Your task to perform on an android device: allow cookies in the chrome app Image 0: 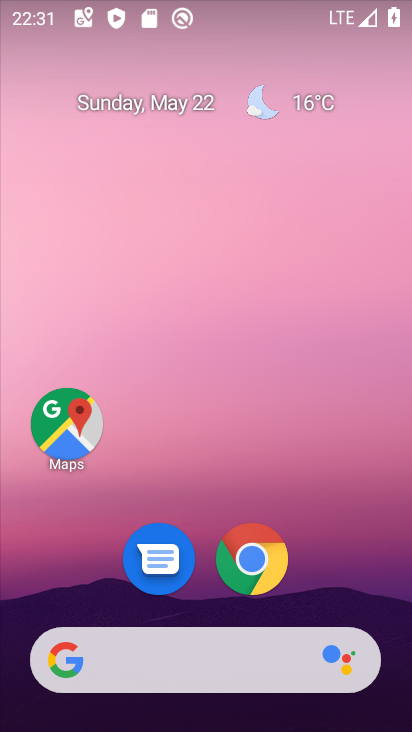
Step 0: drag from (308, 695) to (302, 224)
Your task to perform on an android device: allow cookies in the chrome app Image 1: 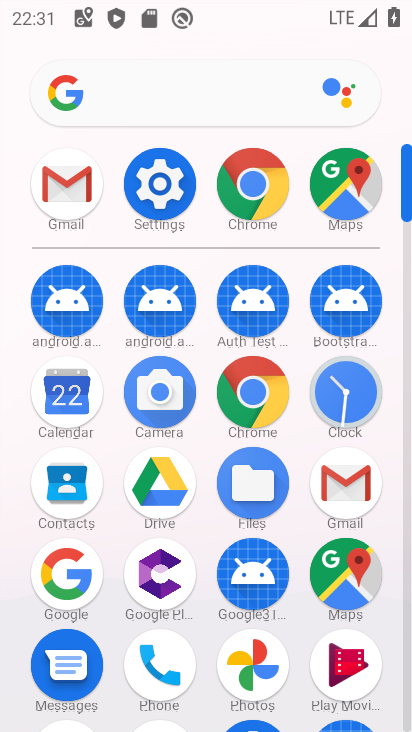
Step 1: click (277, 195)
Your task to perform on an android device: allow cookies in the chrome app Image 2: 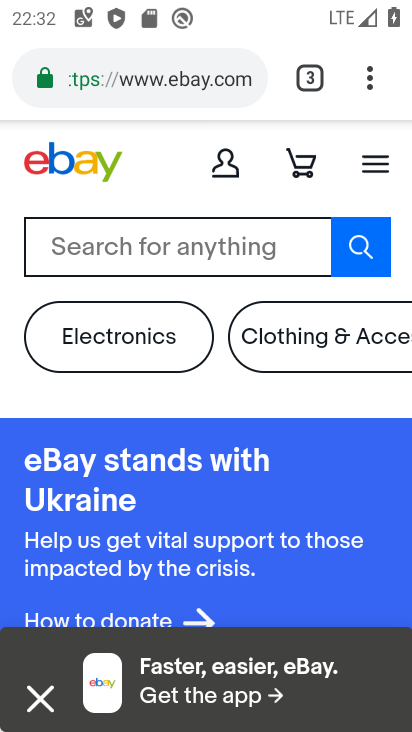
Step 2: click (364, 98)
Your task to perform on an android device: allow cookies in the chrome app Image 3: 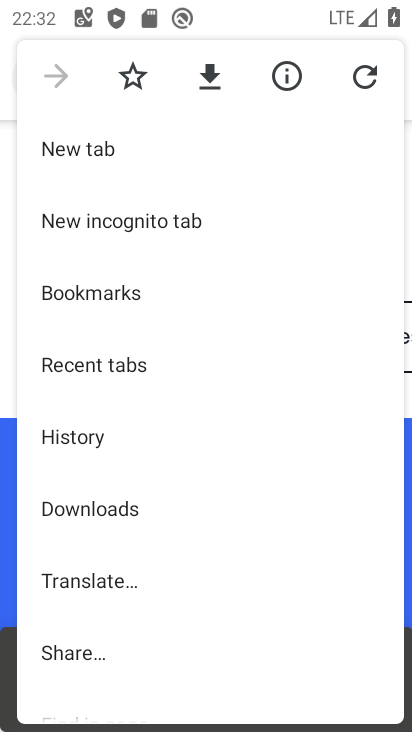
Step 3: drag from (141, 566) to (155, 348)
Your task to perform on an android device: allow cookies in the chrome app Image 4: 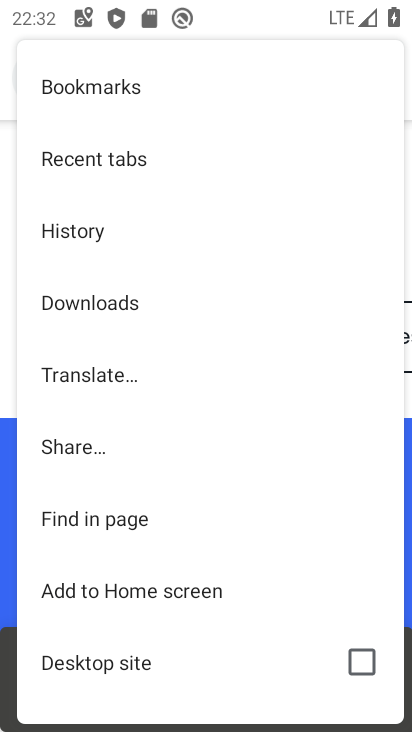
Step 4: drag from (162, 638) to (153, 451)
Your task to perform on an android device: allow cookies in the chrome app Image 5: 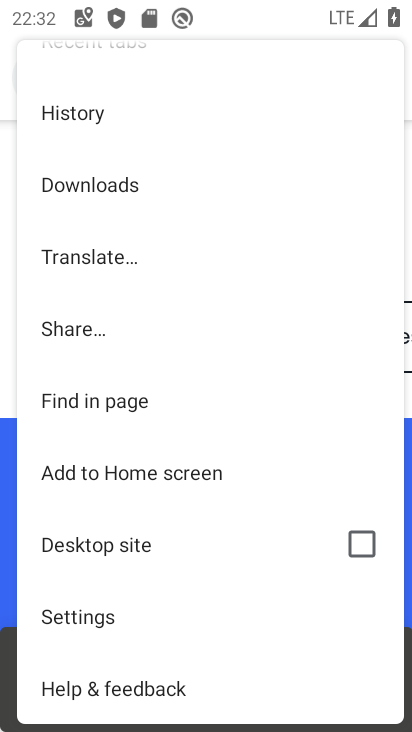
Step 5: click (120, 623)
Your task to perform on an android device: allow cookies in the chrome app Image 6: 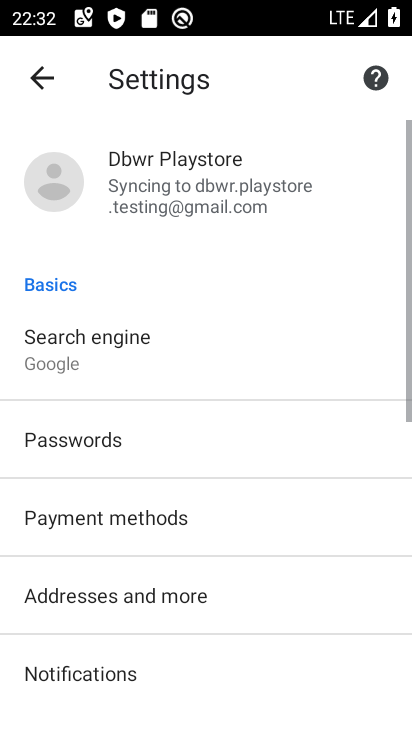
Step 6: drag from (155, 636) to (148, 291)
Your task to perform on an android device: allow cookies in the chrome app Image 7: 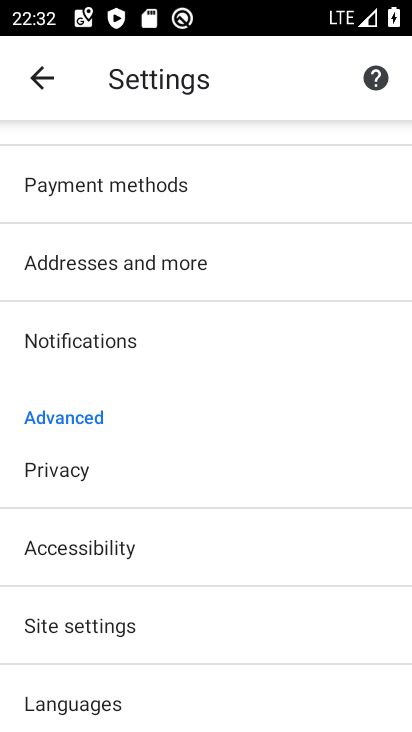
Step 7: click (108, 626)
Your task to perform on an android device: allow cookies in the chrome app Image 8: 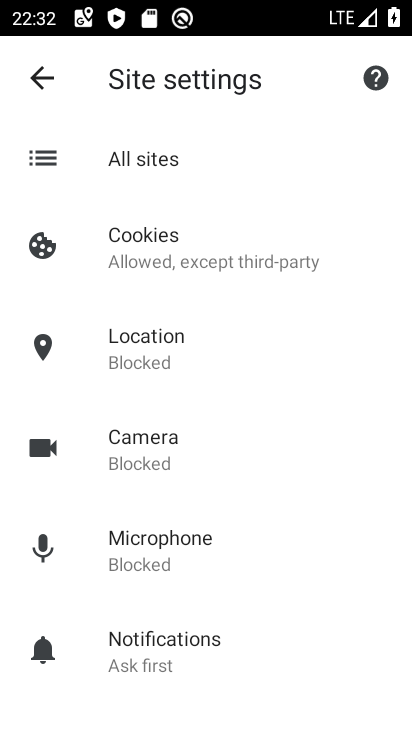
Step 8: click (124, 255)
Your task to perform on an android device: allow cookies in the chrome app Image 9: 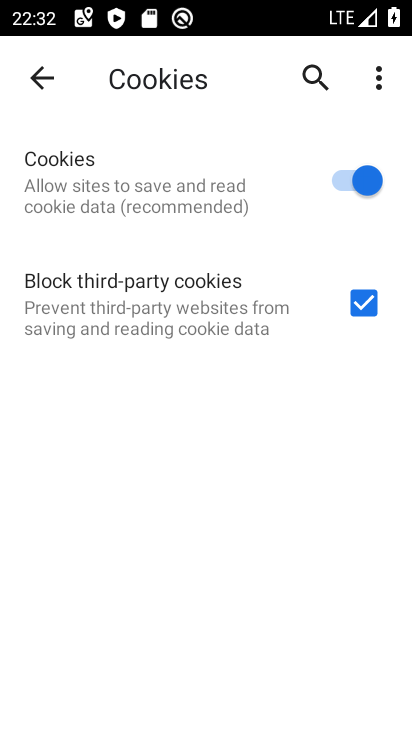
Step 9: click (344, 186)
Your task to perform on an android device: allow cookies in the chrome app Image 10: 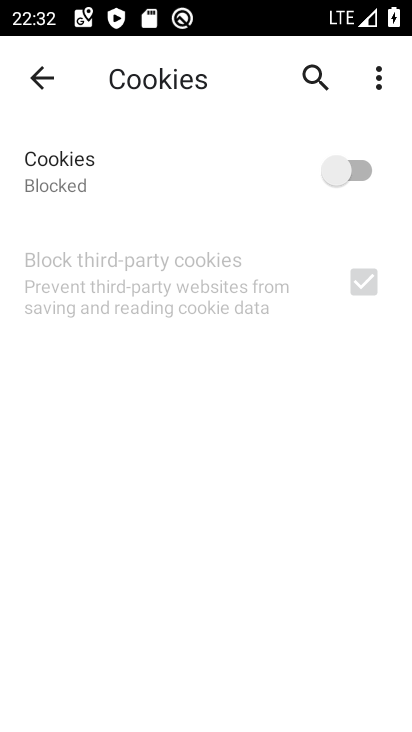
Step 10: click (348, 186)
Your task to perform on an android device: allow cookies in the chrome app Image 11: 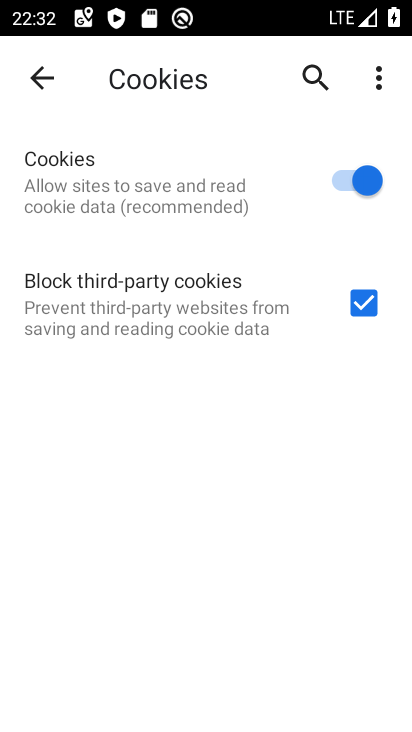
Step 11: task complete